Your task to perform on an android device: see creations saved in the google photos Image 0: 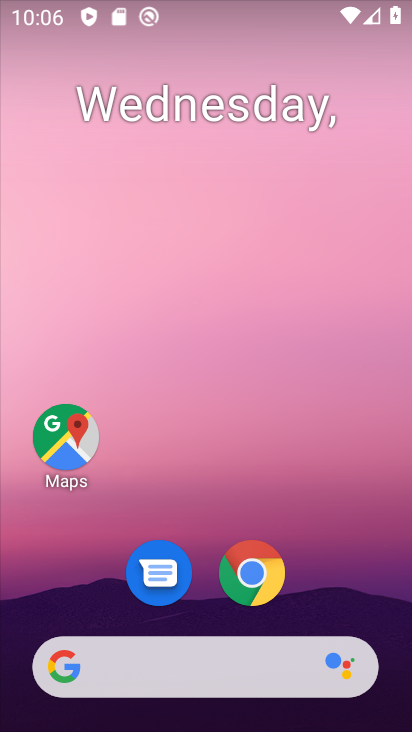
Step 0: drag from (195, 618) to (226, 235)
Your task to perform on an android device: see creations saved in the google photos Image 1: 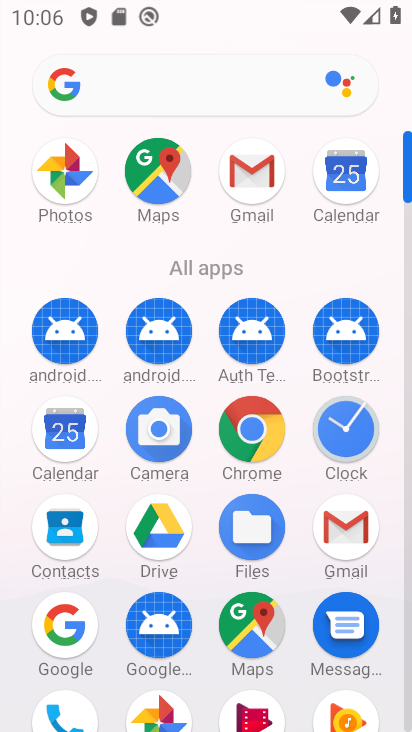
Step 1: click (159, 698)
Your task to perform on an android device: see creations saved in the google photos Image 2: 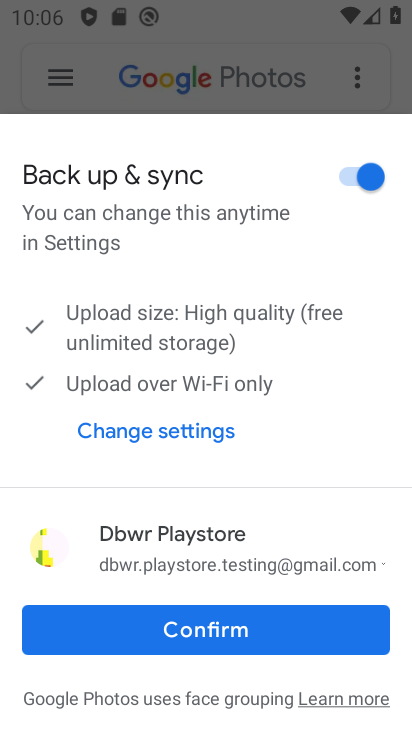
Step 2: click (223, 640)
Your task to perform on an android device: see creations saved in the google photos Image 3: 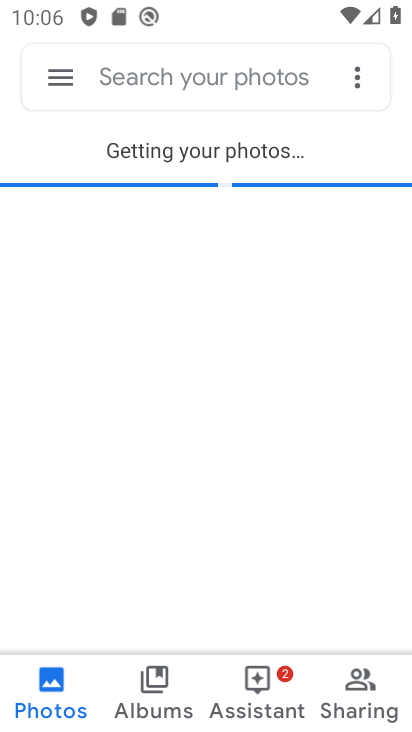
Step 3: click (178, 92)
Your task to perform on an android device: see creations saved in the google photos Image 4: 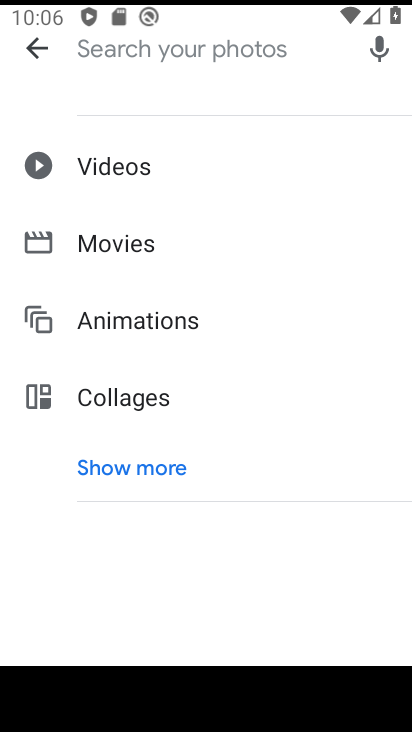
Step 4: type "creation"
Your task to perform on an android device: see creations saved in the google photos Image 5: 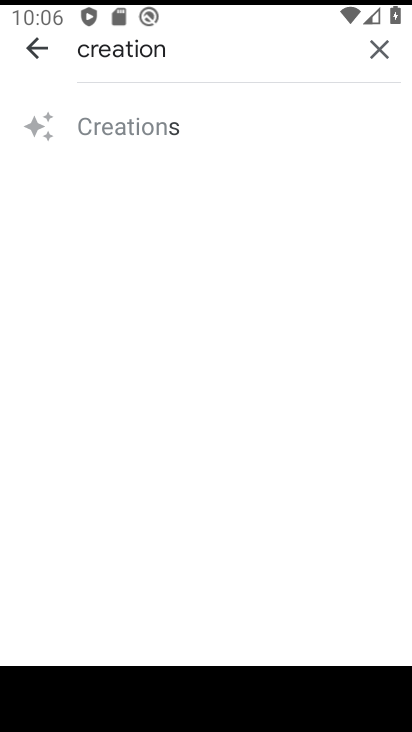
Step 5: click (152, 120)
Your task to perform on an android device: see creations saved in the google photos Image 6: 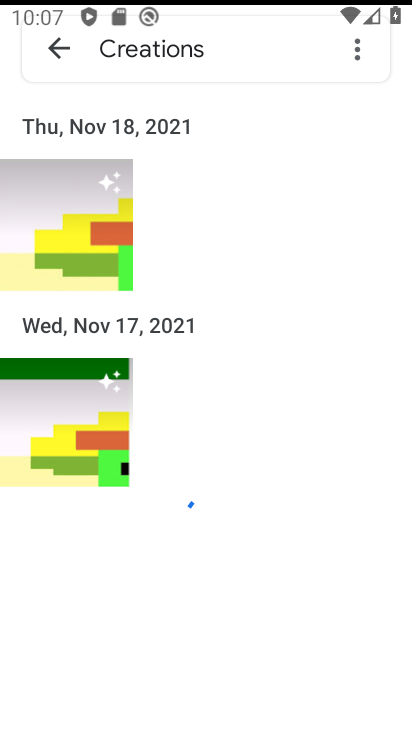
Step 6: task complete